Your task to perform on an android device: turn off sleep mode Image 0: 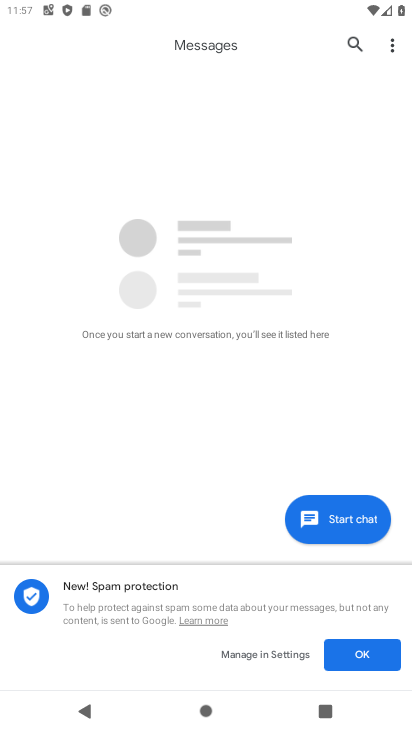
Step 0: press back button
Your task to perform on an android device: turn off sleep mode Image 1: 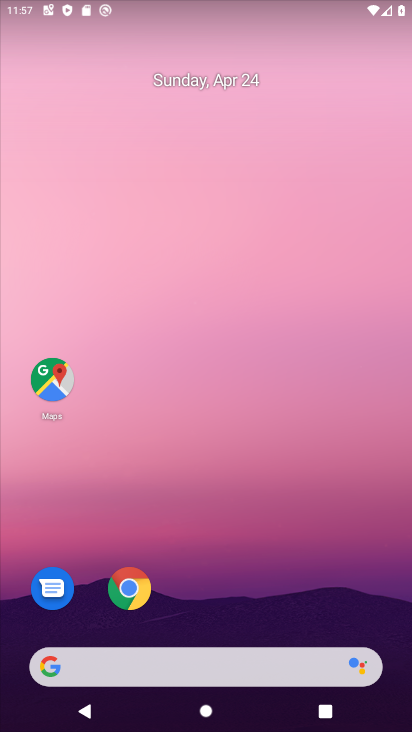
Step 1: drag from (210, 543) to (270, 79)
Your task to perform on an android device: turn off sleep mode Image 2: 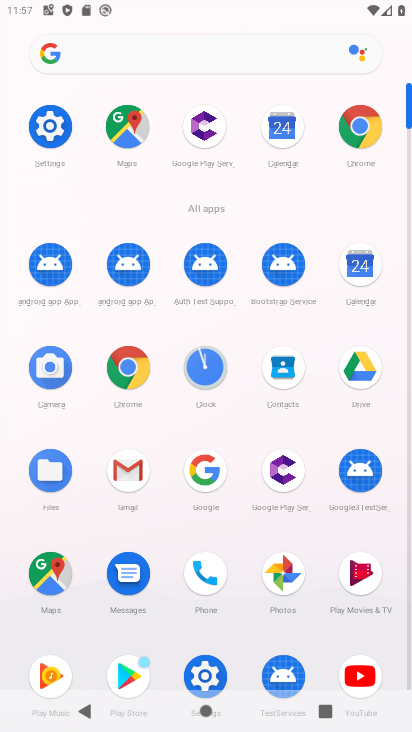
Step 2: drag from (197, 630) to (265, 346)
Your task to perform on an android device: turn off sleep mode Image 3: 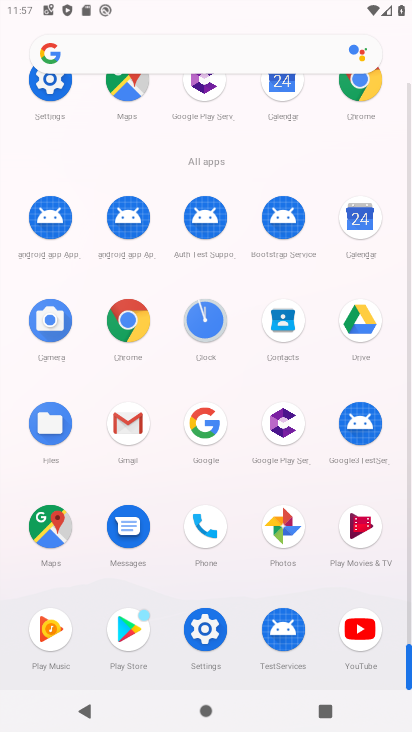
Step 3: click (211, 618)
Your task to perform on an android device: turn off sleep mode Image 4: 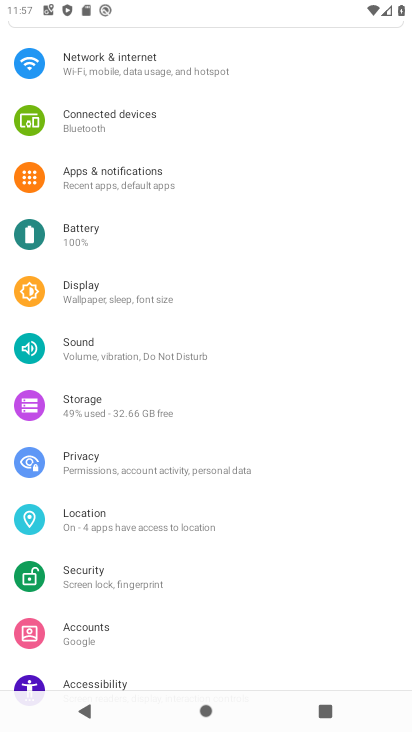
Step 4: click (136, 304)
Your task to perform on an android device: turn off sleep mode Image 5: 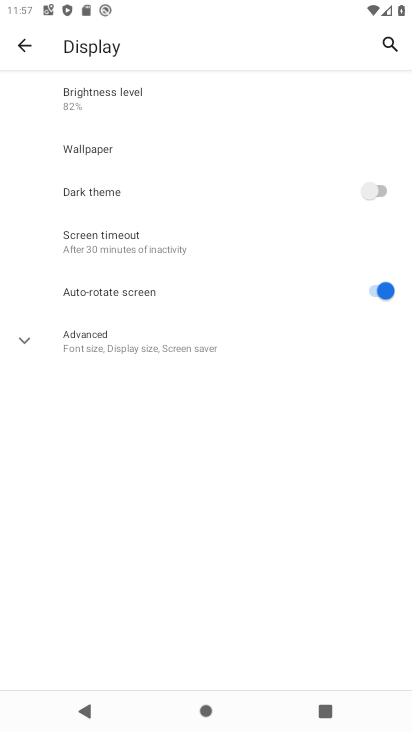
Step 5: click (150, 345)
Your task to perform on an android device: turn off sleep mode Image 6: 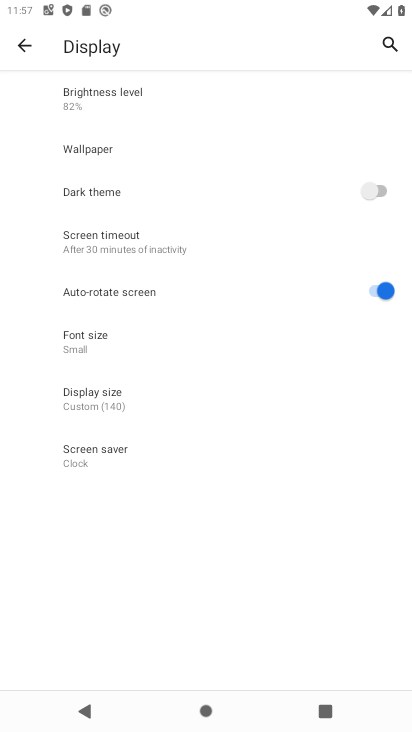
Step 6: task complete